Your task to perform on an android device: What's the weather today? Image 0: 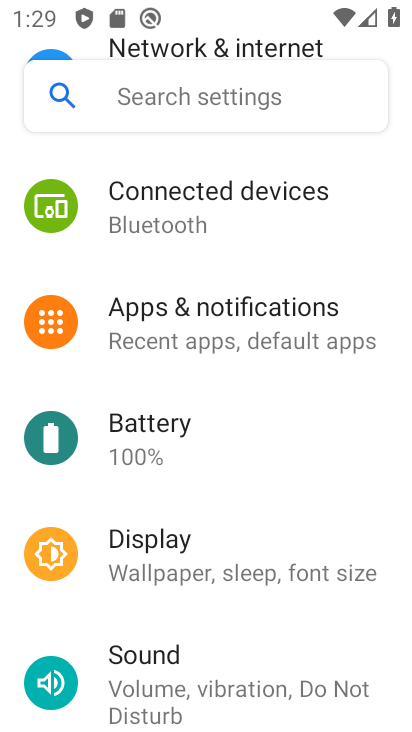
Step 0: press home button
Your task to perform on an android device: What's the weather today? Image 1: 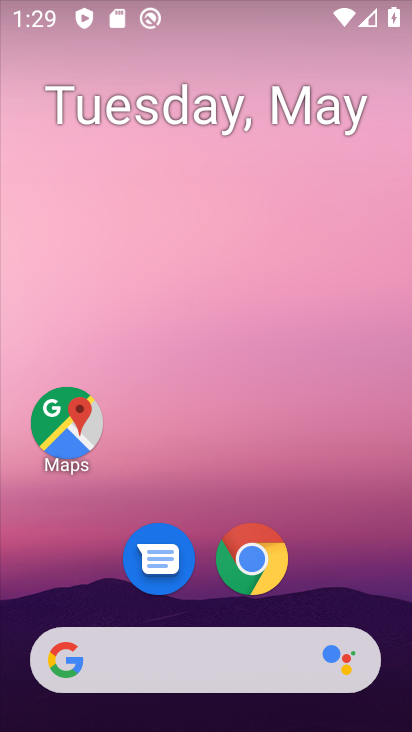
Step 1: drag from (390, 628) to (268, 46)
Your task to perform on an android device: What's the weather today? Image 2: 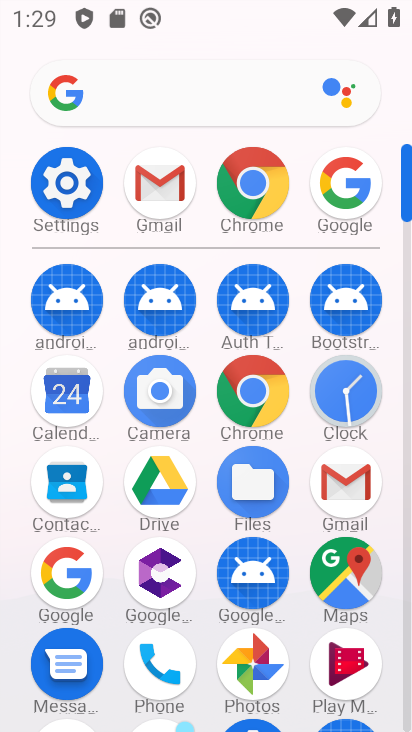
Step 2: click (70, 563)
Your task to perform on an android device: What's the weather today? Image 3: 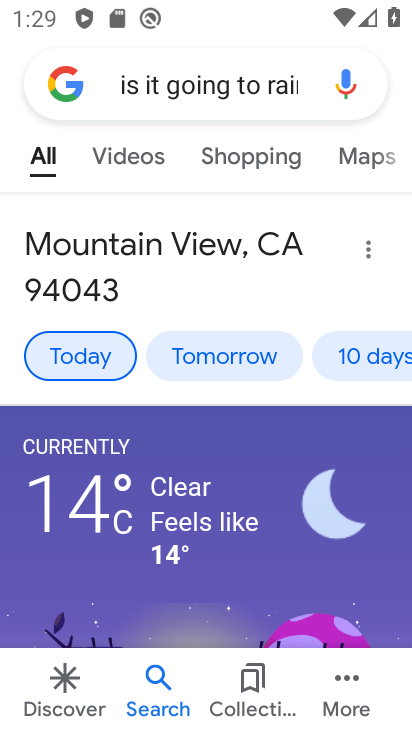
Step 3: press back button
Your task to perform on an android device: What's the weather today? Image 4: 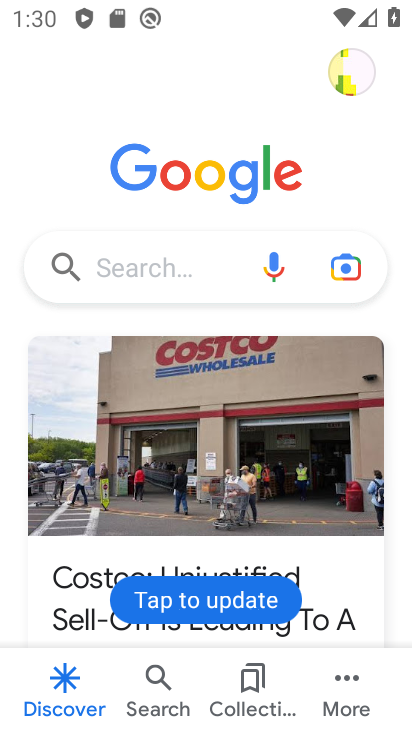
Step 4: click (163, 248)
Your task to perform on an android device: What's the weather today? Image 5: 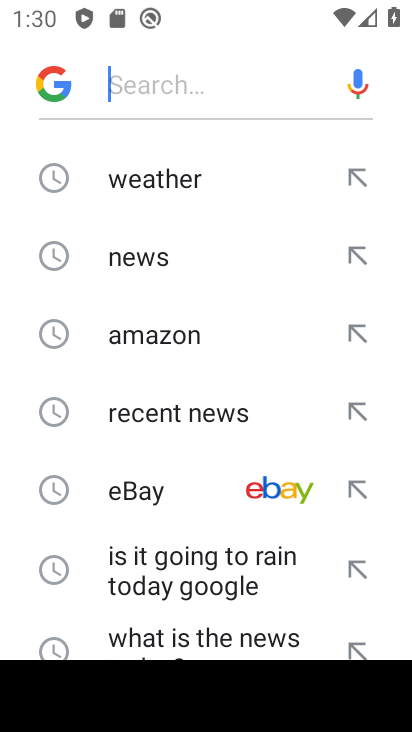
Step 5: drag from (185, 592) to (217, 242)
Your task to perform on an android device: What's the weather today? Image 6: 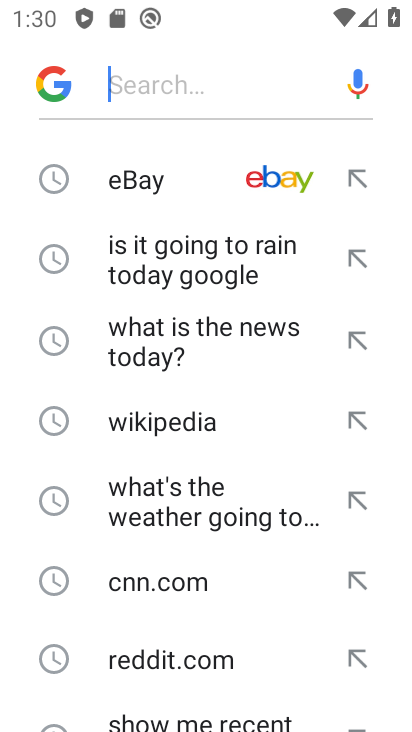
Step 6: drag from (184, 547) to (233, 187)
Your task to perform on an android device: What's the weather today? Image 7: 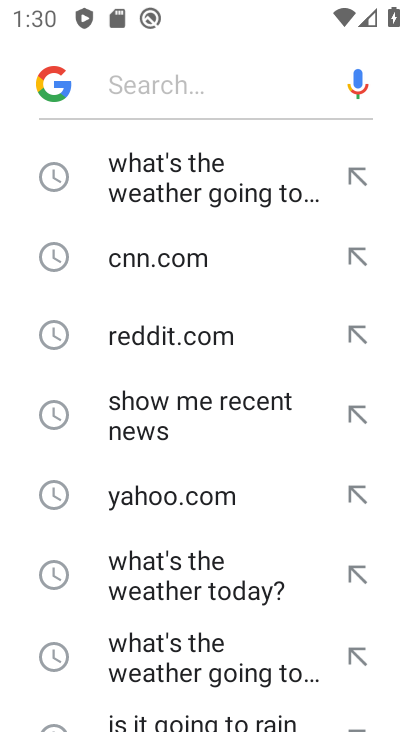
Step 7: click (191, 602)
Your task to perform on an android device: What's the weather today? Image 8: 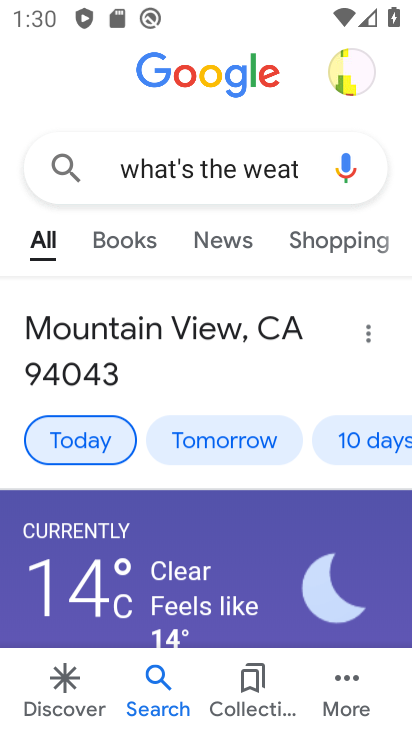
Step 8: task complete